Your task to perform on an android device: turn off airplane mode Image 0: 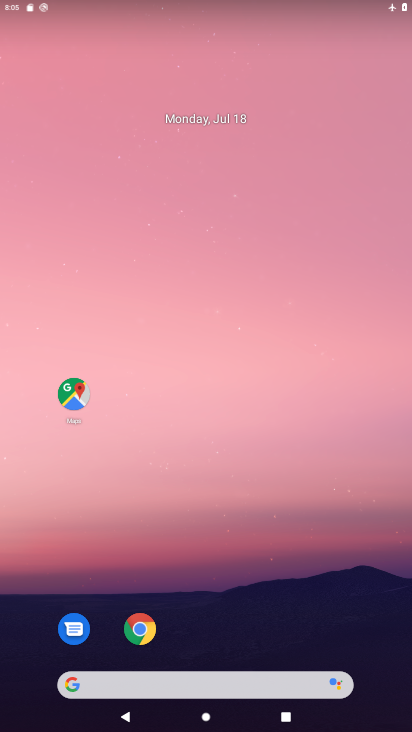
Step 0: drag from (344, 47) to (326, 489)
Your task to perform on an android device: turn off airplane mode Image 1: 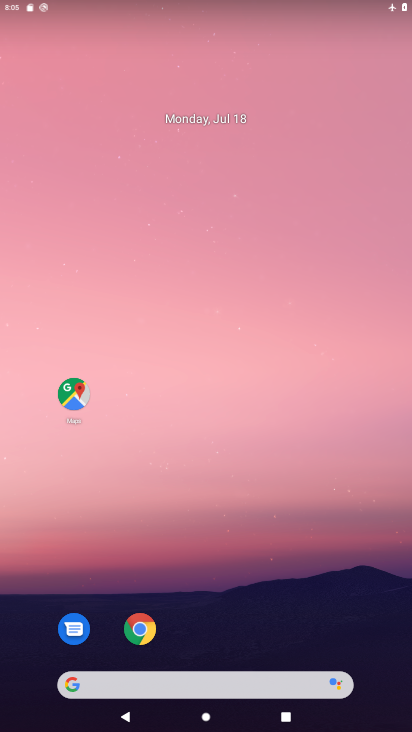
Step 1: drag from (254, 5) to (178, 615)
Your task to perform on an android device: turn off airplane mode Image 2: 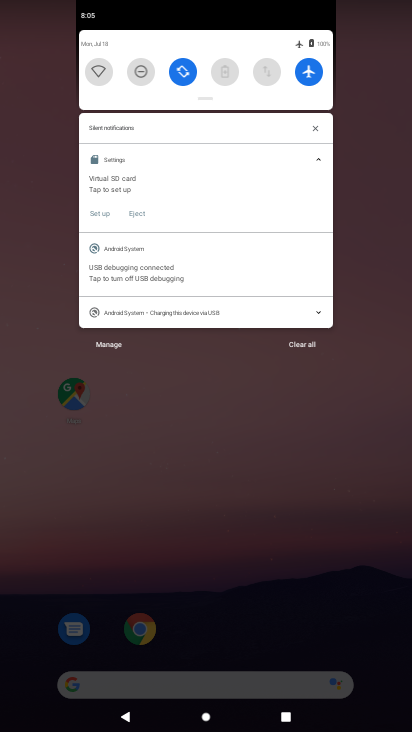
Step 2: click (313, 75)
Your task to perform on an android device: turn off airplane mode Image 3: 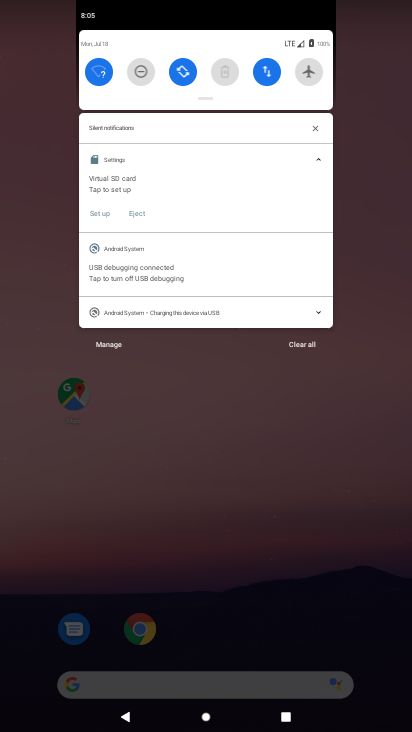
Step 3: click (309, 342)
Your task to perform on an android device: turn off airplane mode Image 4: 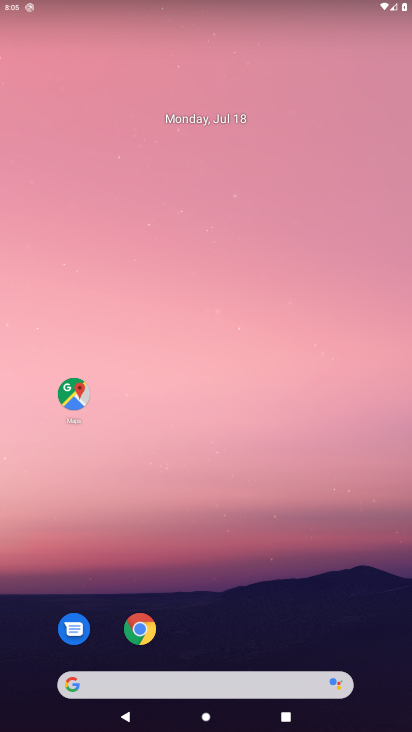
Step 4: task complete